Your task to perform on an android device: turn on location history Image 0: 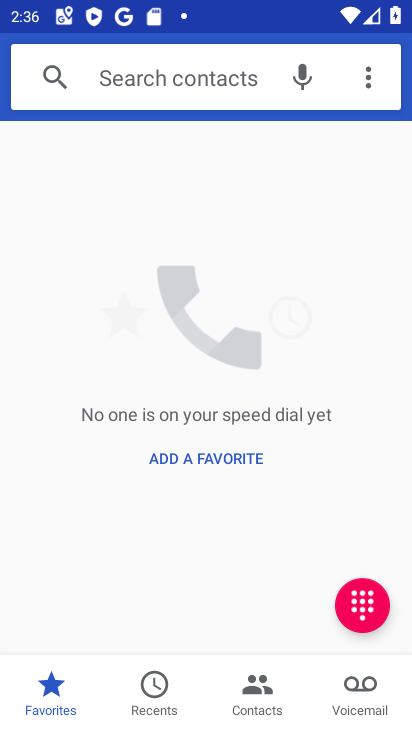
Step 0: press home button
Your task to perform on an android device: turn on location history Image 1: 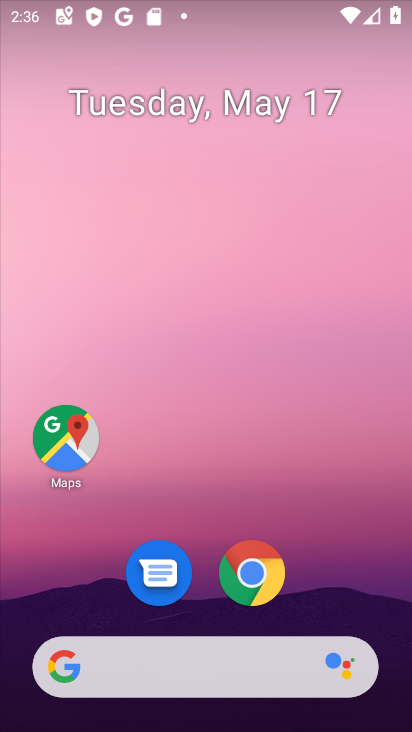
Step 1: drag from (364, 583) to (337, 100)
Your task to perform on an android device: turn on location history Image 2: 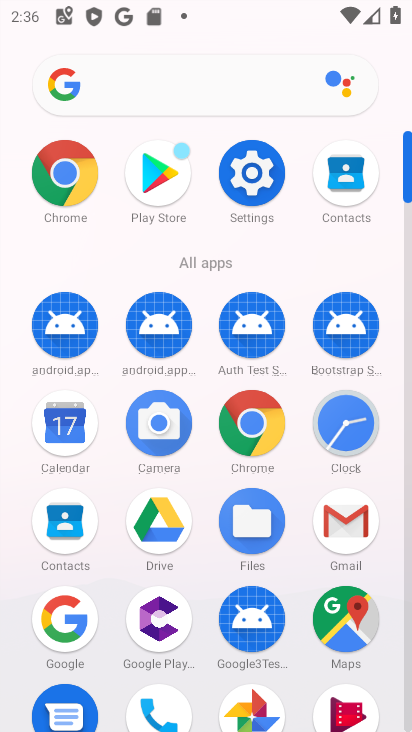
Step 2: click (273, 187)
Your task to perform on an android device: turn on location history Image 3: 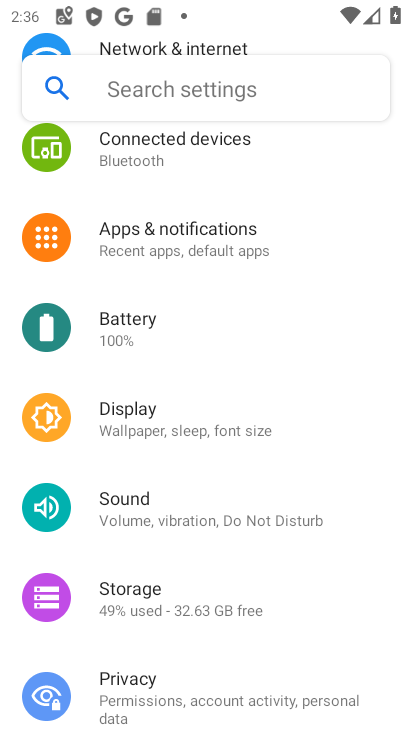
Step 3: drag from (170, 676) to (211, 346)
Your task to perform on an android device: turn on location history Image 4: 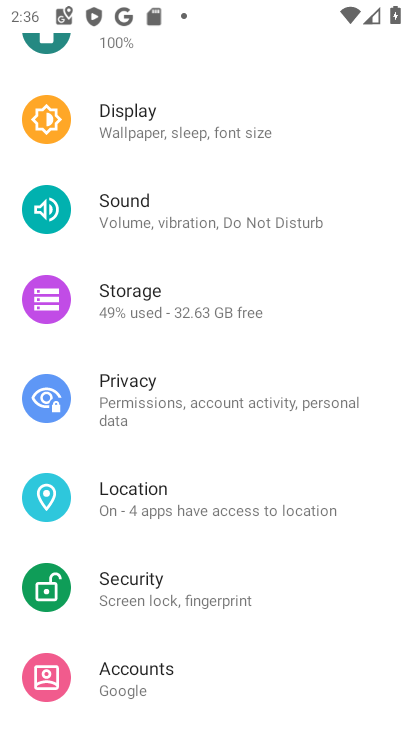
Step 4: click (189, 505)
Your task to perform on an android device: turn on location history Image 5: 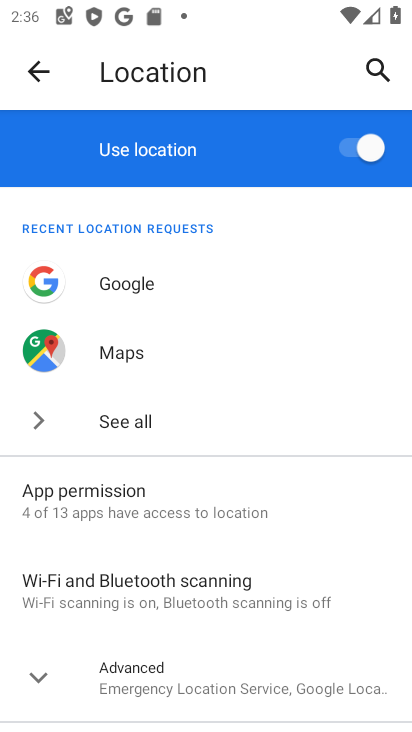
Step 5: drag from (203, 656) to (244, 309)
Your task to perform on an android device: turn on location history Image 6: 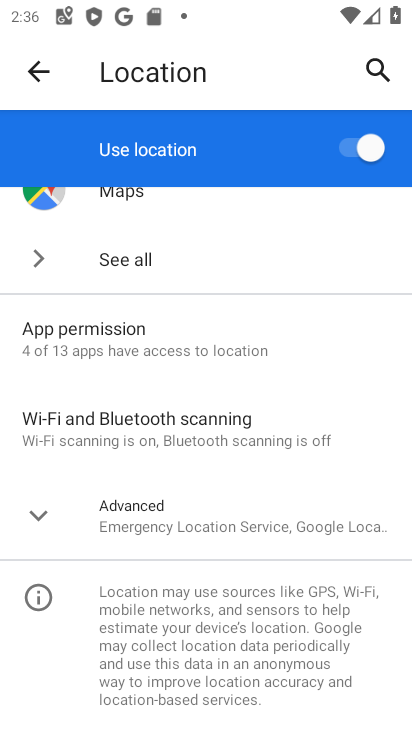
Step 6: click (136, 515)
Your task to perform on an android device: turn on location history Image 7: 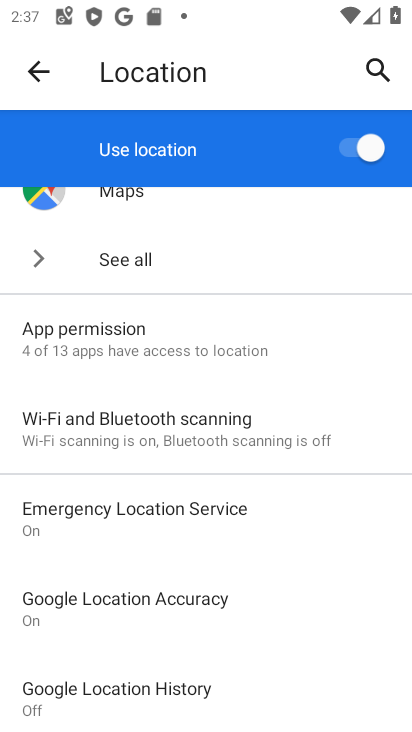
Step 7: drag from (161, 657) to (166, 438)
Your task to perform on an android device: turn on location history Image 8: 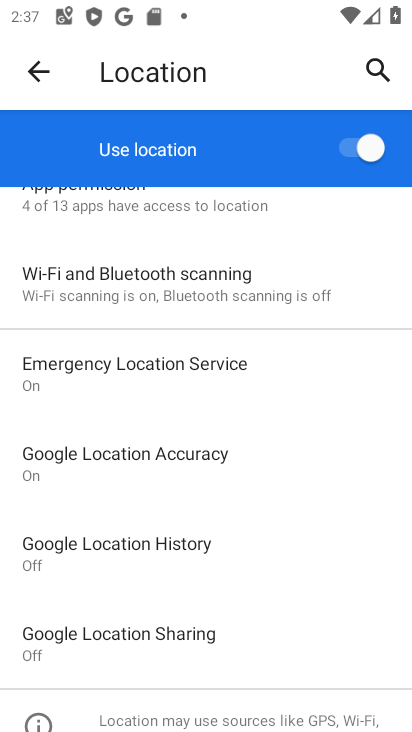
Step 8: click (64, 544)
Your task to perform on an android device: turn on location history Image 9: 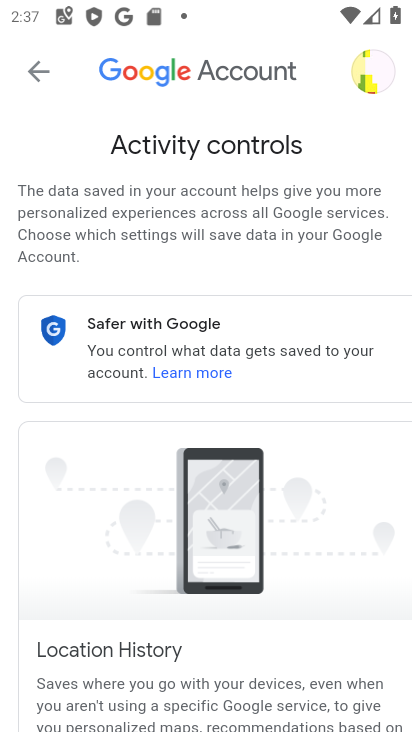
Step 9: drag from (122, 671) to (127, 339)
Your task to perform on an android device: turn on location history Image 10: 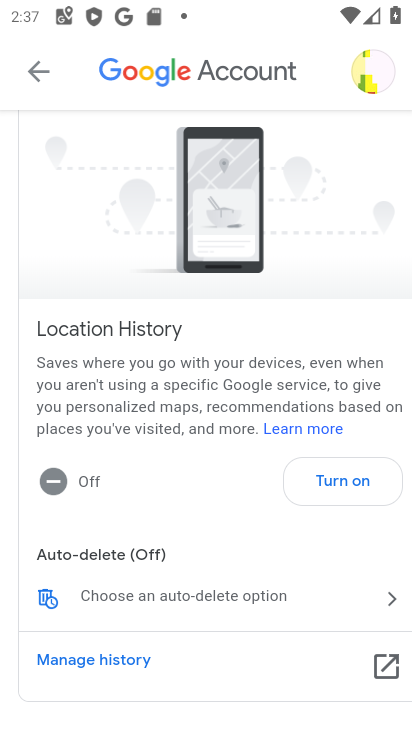
Step 10: click (342, 485)
Your task to perform on an android device: turn on location history Image 11: 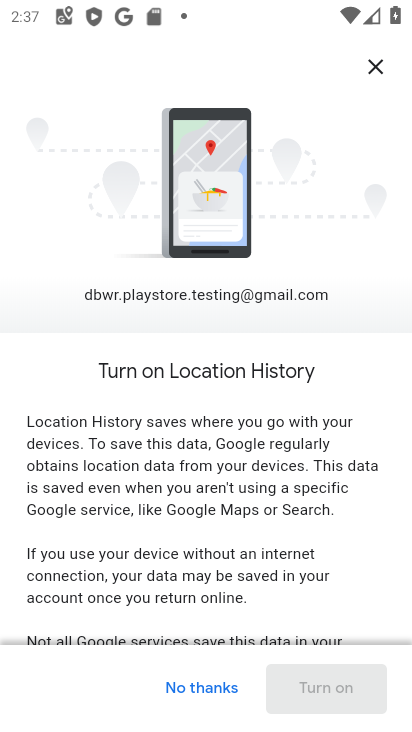
Step 11: drag from (288, 587) to (289, 187)
Your task to perform on an android device: turn on location history Image 12: 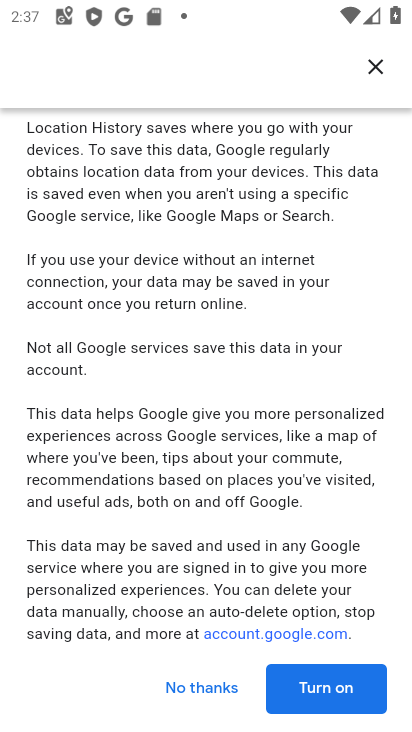
Step 12: click (304, 676)
Your task to perform on an android device: turn on location history Image 13: 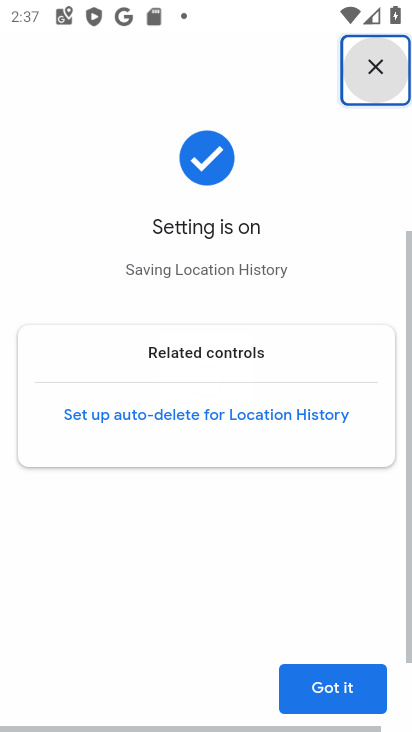
Step 13: click (309, 690)
Your task to perform on an android device: turn on location history Image 14: 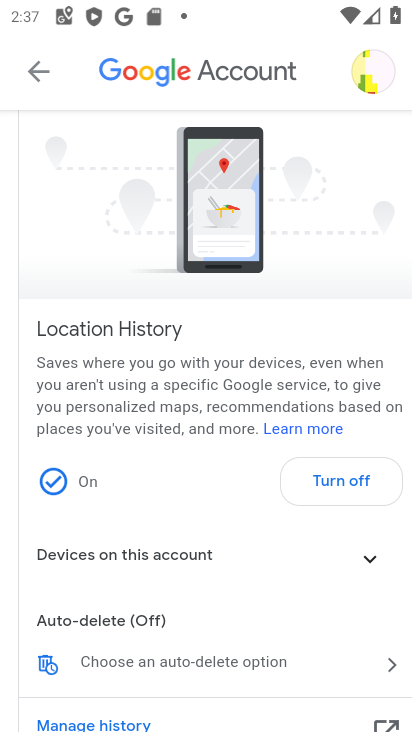
Step 14: task complete